Your task to perform on an android device: What is the news today? Image 0: 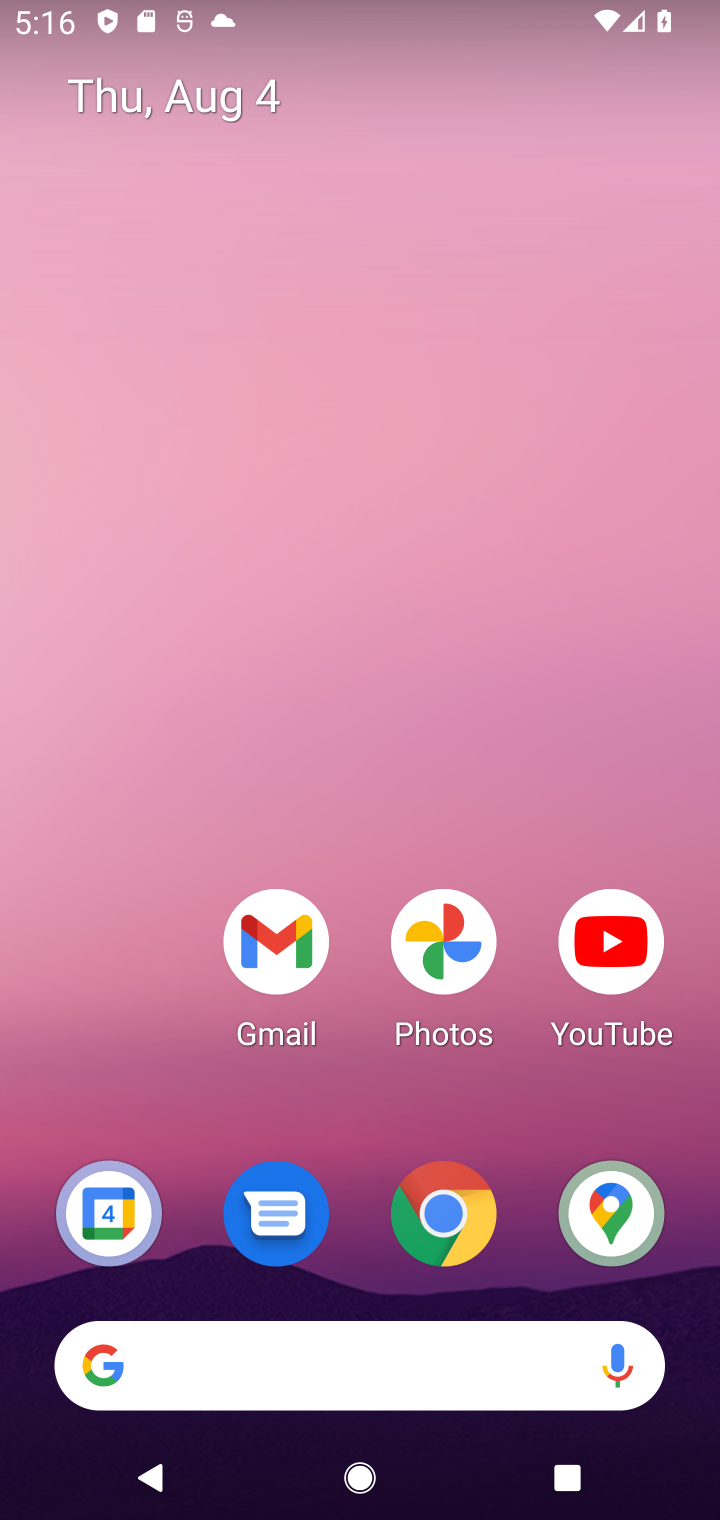
Step 0: drag from (37, 558) to (698, 631)
Your task to perform on an android device: What is the news today? Image 1: 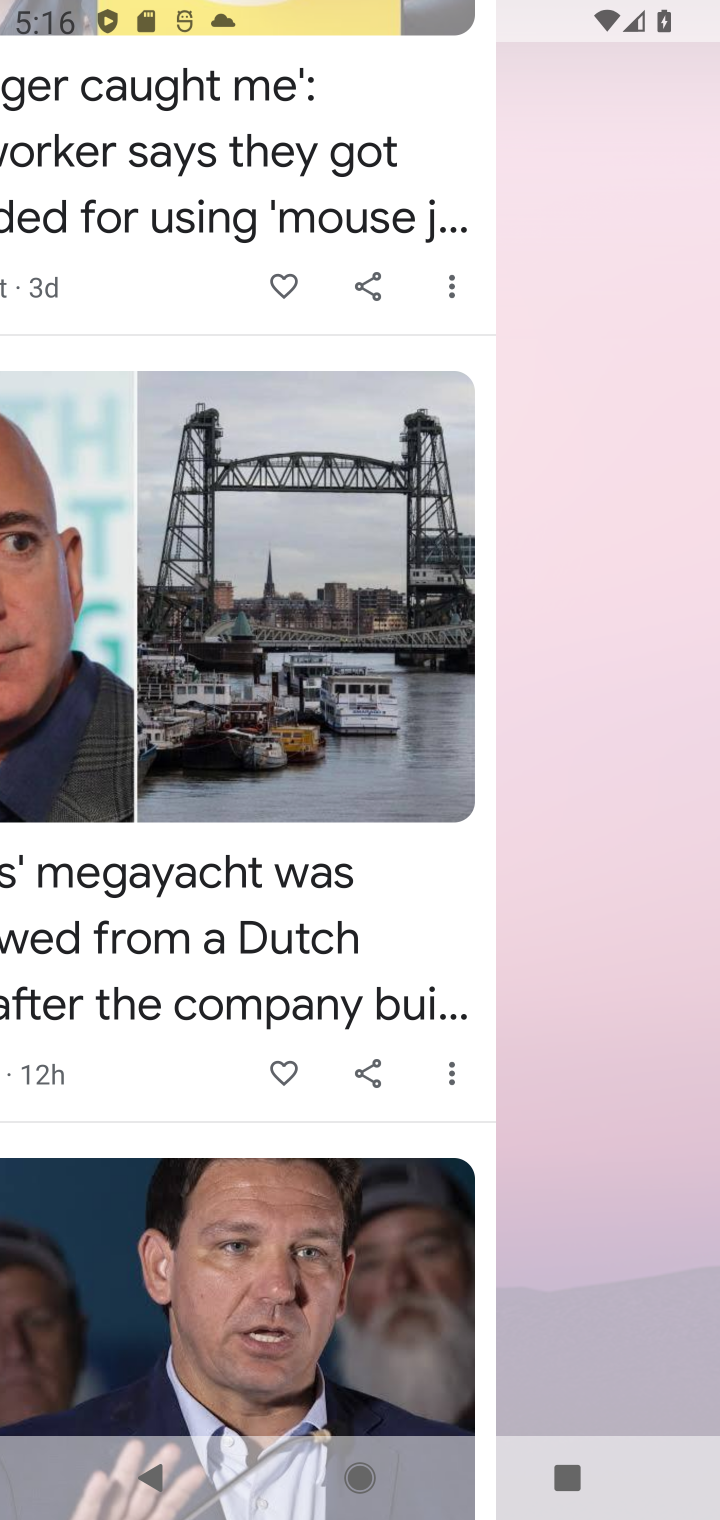
Step 1: task complete